Your task to perform on an android device: What's the weather today? Image 0: 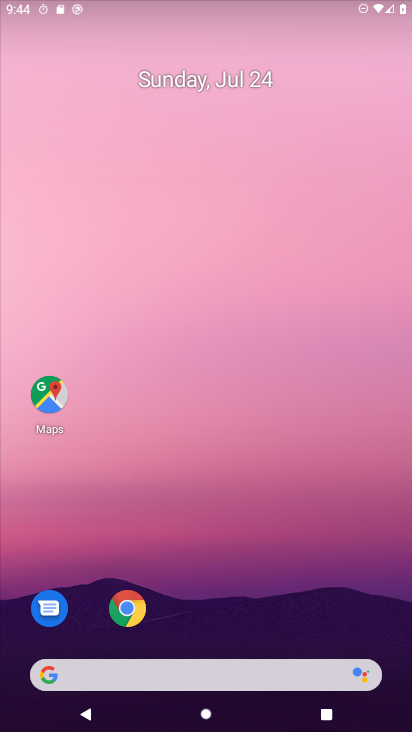
Step 0: drag from (187, 633) to (156, 155)
Your task to perform on an android device: What's the weather today? Image 1: 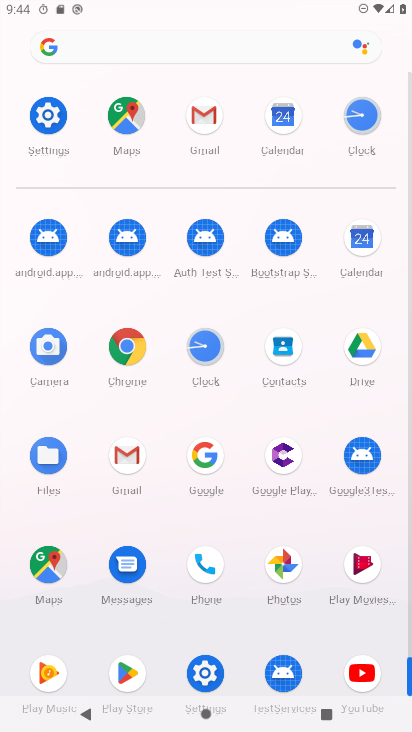
Step 1: click (184, 57)
Your task to perform on an android device: What's the weather today? Image 2: 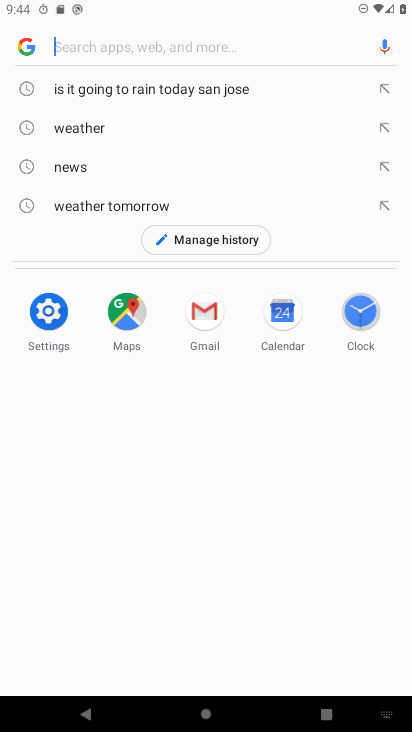
Step 2: type "weather today?"
Your task to perform on an android device: What's the weather today? Image 3: 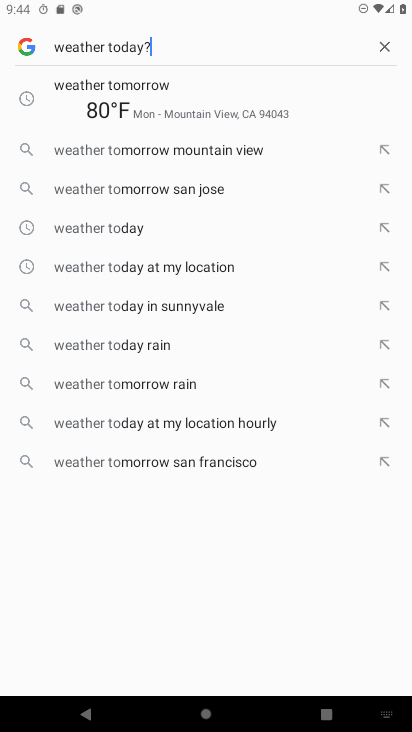
Step 3: type ""
Your task to perform on an android device: What's the weather today? Image 4: 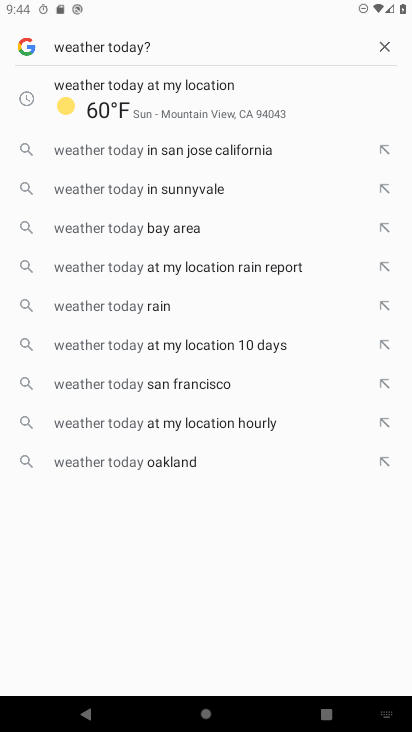
Step 4: click (137, 96)
Your task to perform on an android device: What's the weather today? Image 5: 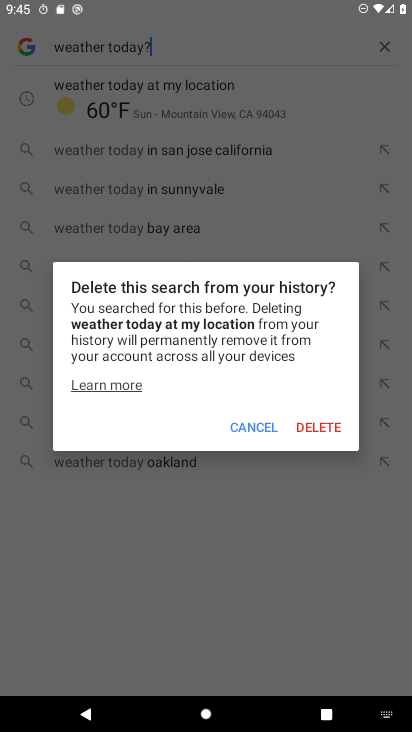
Step 5: click (259, 426)
Your task to perform on an android device: What's the weather today? Image 6: 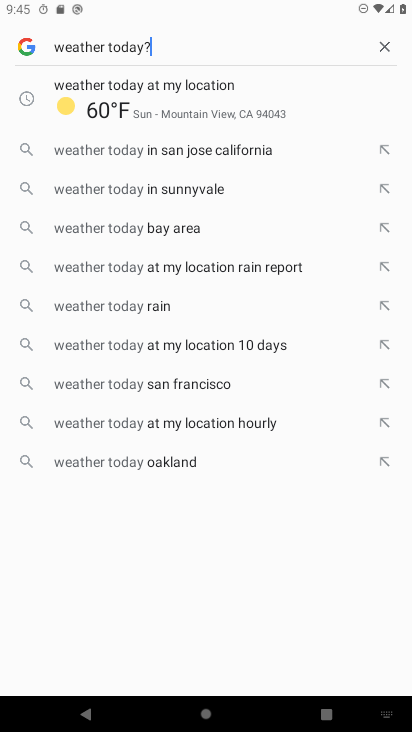
Step 6: click (70, 108)
Your task to perform on an android device: What's the weather today? Image 7: 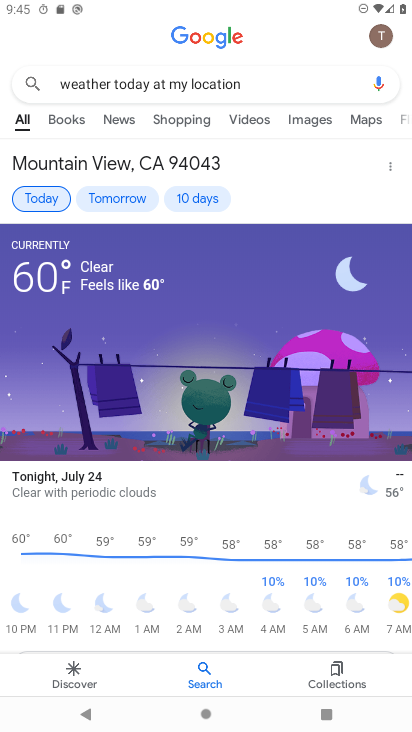
Step 7: task complete